Your task to perform on an android device: Open Google Maps and go to "Timeline" Image 0: 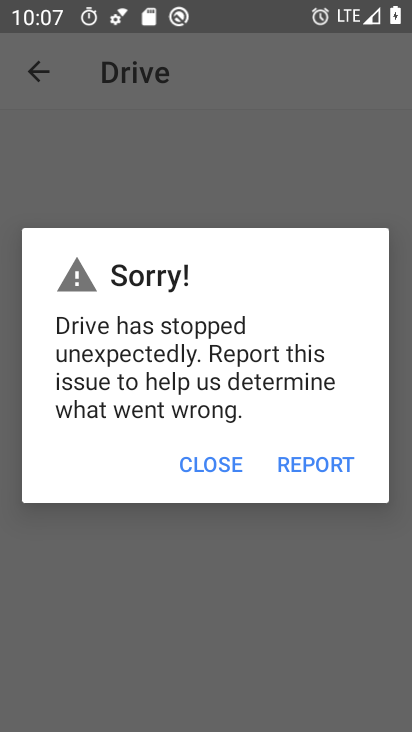
Step 0: drag from (393, 550) to (363, 261)
Your task to perform on an android device: Open Google Maps and go to "Timeline" Image 1: 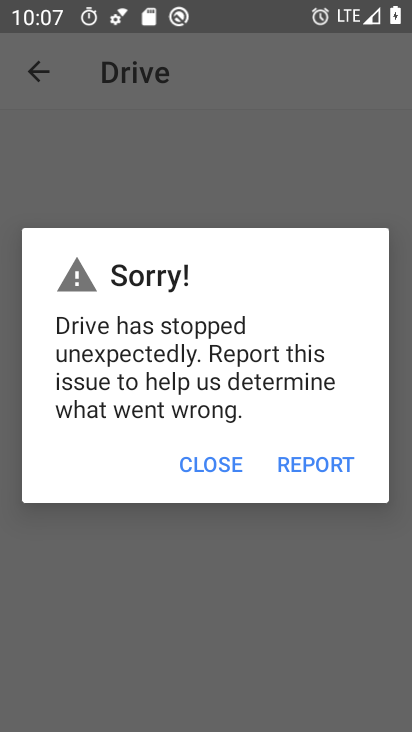
Step 1: press home button
Your task to perform on an android device: Open Google Maps and go to "Timeline" Image 2: 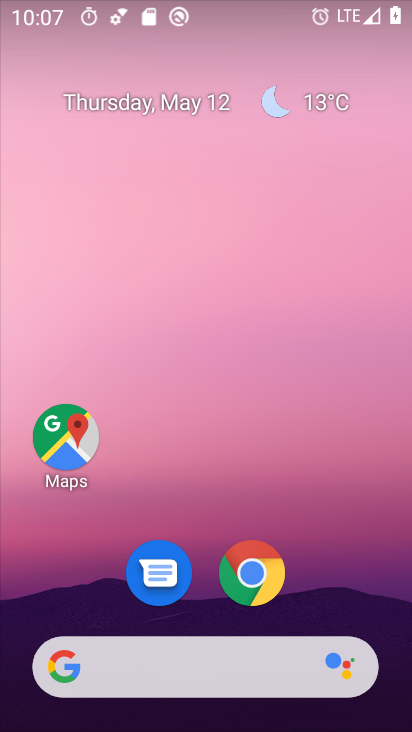
Step 2: click (79, 425)
Your task to perform on an android device: Open Google Maps and go to "Timeline" Image 3: 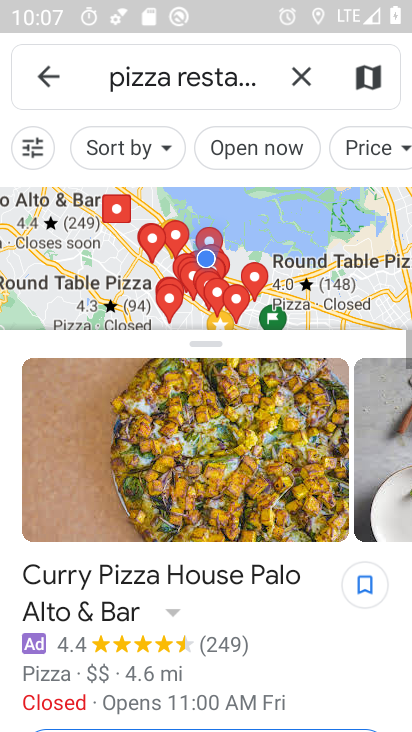
Step 3: click (36, 71)
Your task to perform on an android device: Open Google Maps and go to "Timeline" Image 4: 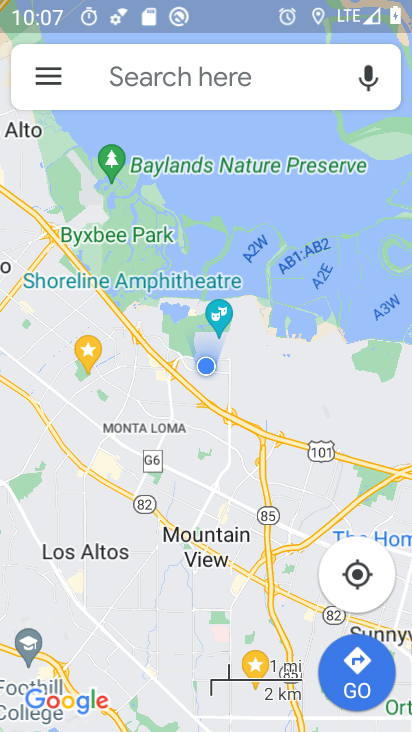
Step 4: click (42, 73)
Your task to perform on an android device: Open Google Maps and go to "Timeline" Image 5: 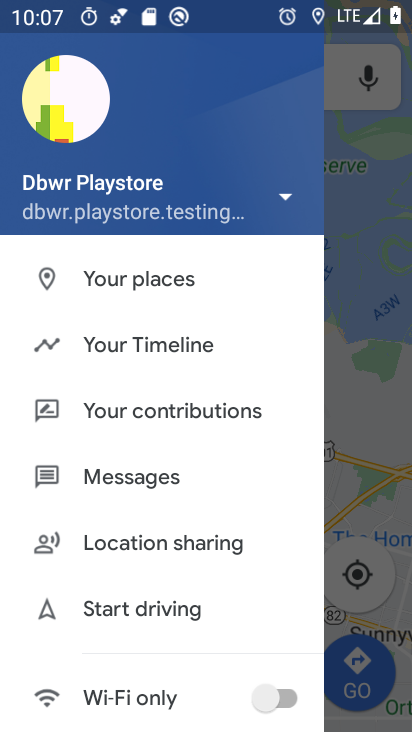
Step 5: click (139, 346)
Your task to perform on an android device: Open Google Maps and go to "Timeline" Image 6: 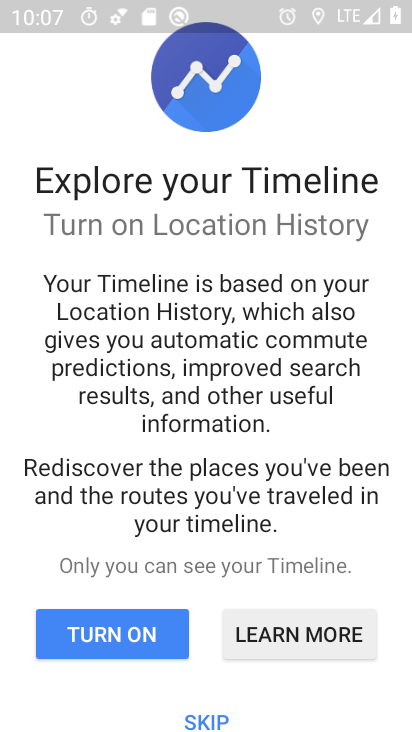
Step 6: click (145, 628)
Your task to perform on an android device: Open Google Maps and go to "Timeline" Image 7: 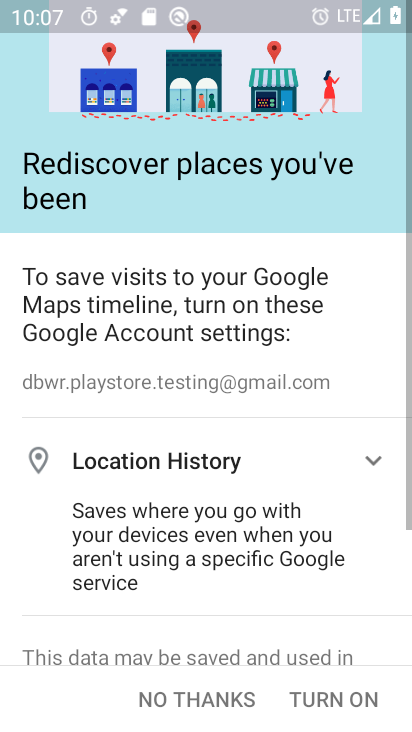
Step 7: task complete